Your task to perform on an android device: Open network settings Image 0: 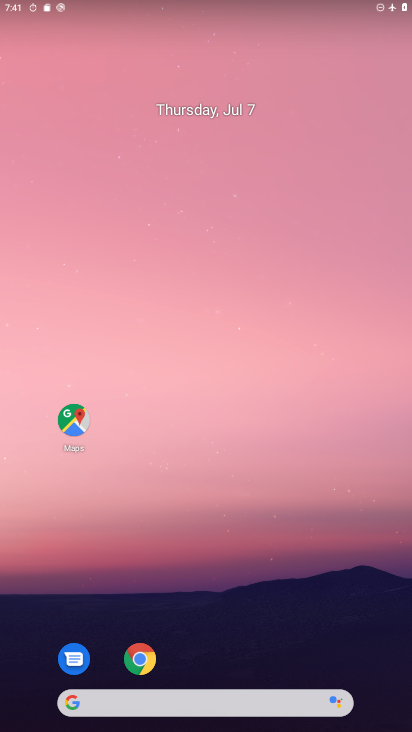
Step 0: drag from (392, 704) to (291, 74)
Your task to perform on an android device: Open network settings Image 1: 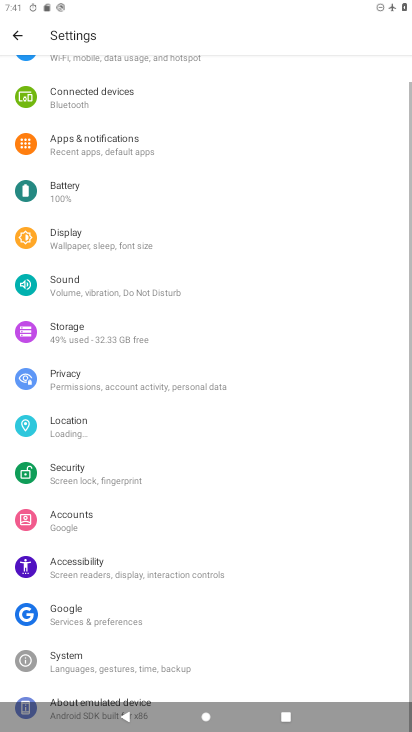
Step 1: press home button
Your task to perform on an android device: Open network settings Image 2: 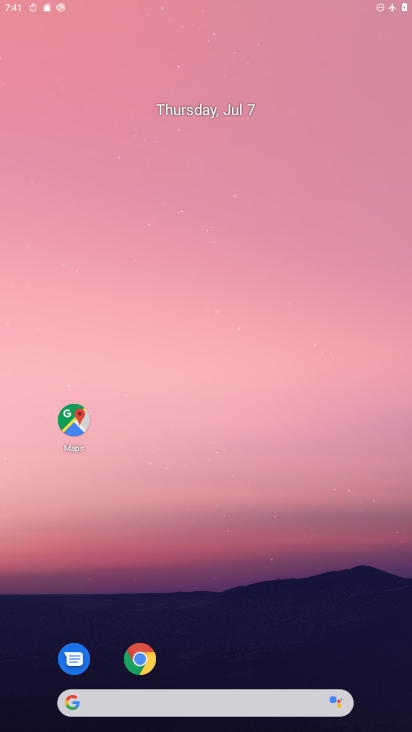
Step 2: drag from (399, 675) to (339, 12)
Your task to perform on an android device: Open network settings Image 3: 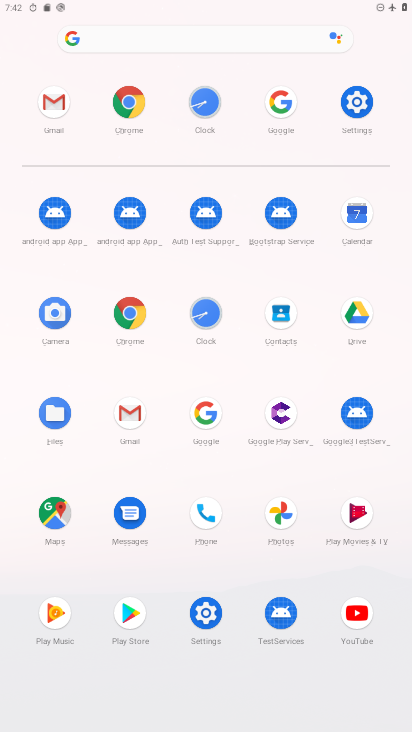
Step 3: click (365, 87)
Your task to perform on an android device: Open network settings Image 4: 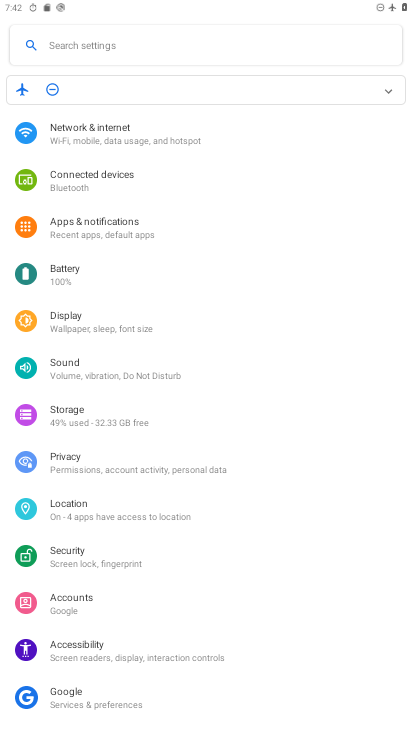
Step 4: click (145, 137)
Your task to perform on an android device: Open network settings Image 5: 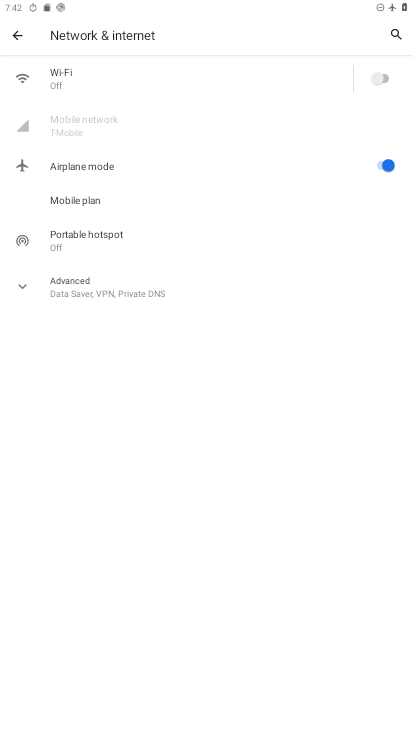
Step 5: task complete